Your task to perform on an android device: Open Google Chrome and click the shortcut for Amazon.com Image 0: 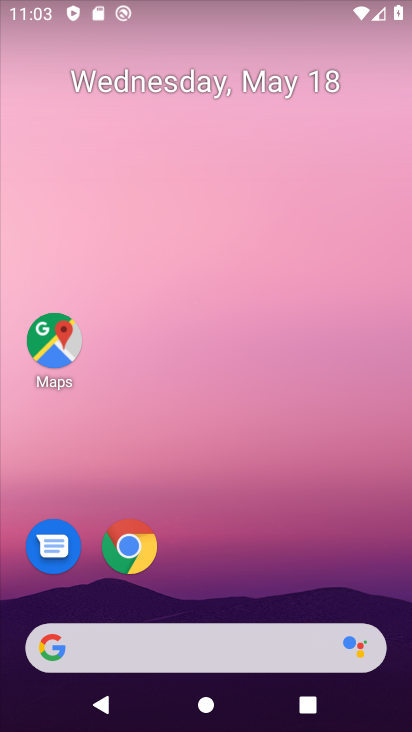
Step 0: click (135, 562)
Your task to perform on an android device: Open Google Chrome and click the shortcut for Amazon.com Image 1: 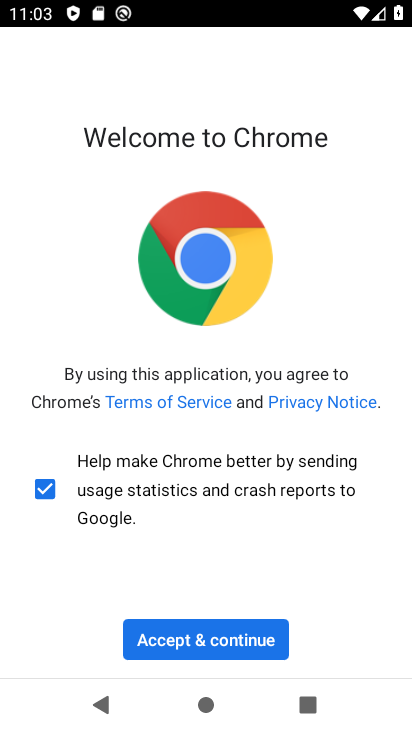
Step 1: click (264, 649)
Your task to perform on an android device: Open Google Chrome and click the shortcut for Amazon.com Image 2: 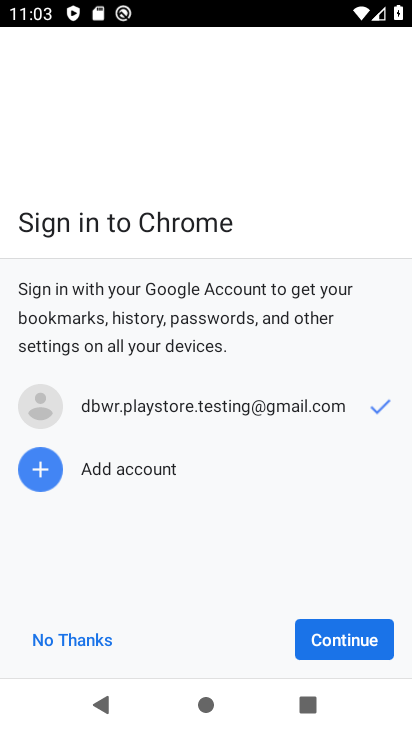
Step 2: click (377, 655)
Your task to perform on an android device: Open Google Chrome and click the shortcut for Amazon.com Image 3: 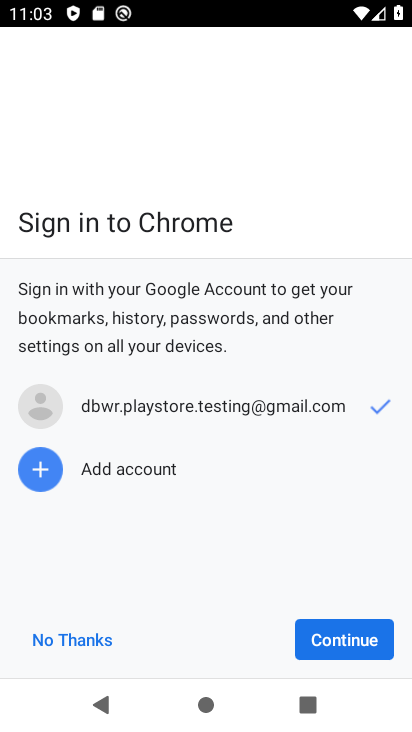
Step 3: click (377, 655)
Your task to perform on an android device: Open Google Chrome and click the shortcut for Amazon.com Image 4: 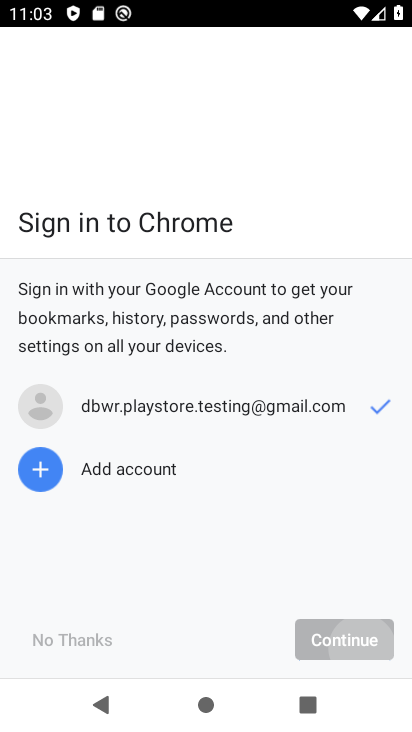
Step 4: click (377, 655)
Your task to perform on an android device: Open Google Chrome and click the shortcut for Amazon.com Image 5: 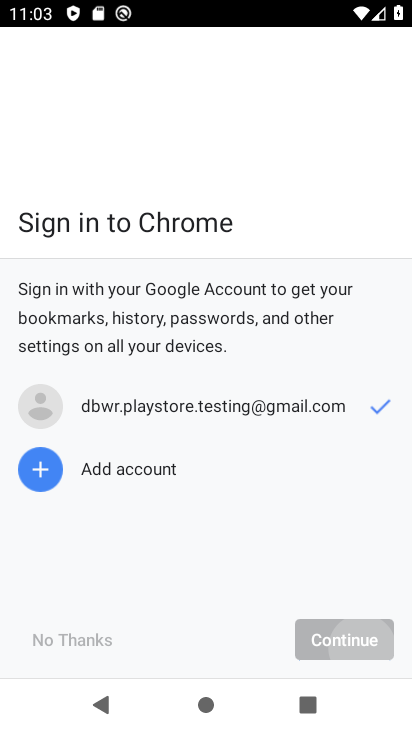
Step 5: click (377, 655)
Your task to perform on an android device: Open Google Chrome and click the shortcut for Amazon.com Image 6: 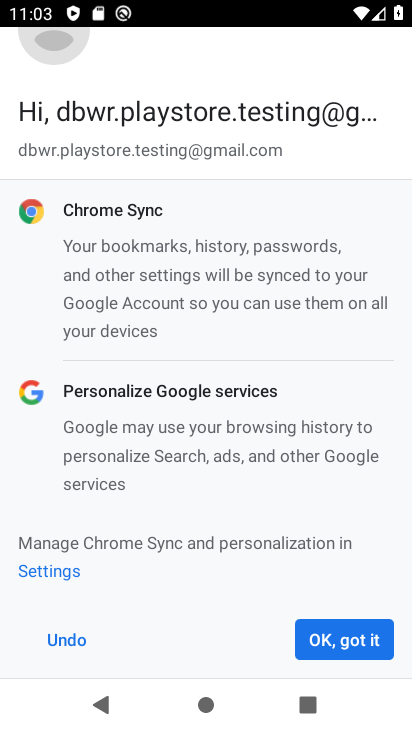
Step 6: click (377, 655)
Your task to perform on an android device: Open Google Chrome and click the shortcut for Amazon.com Image 7: 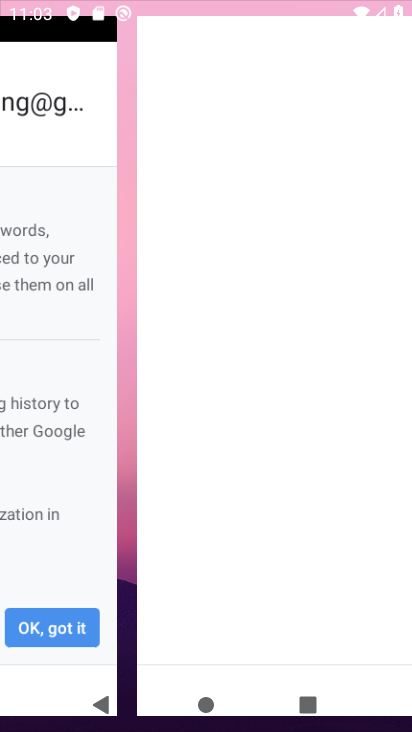
Step 7: click (377, 655)
Your task to perform on an android device: Open Google Chrome and click the shortcut for Amazon.com Image 8: 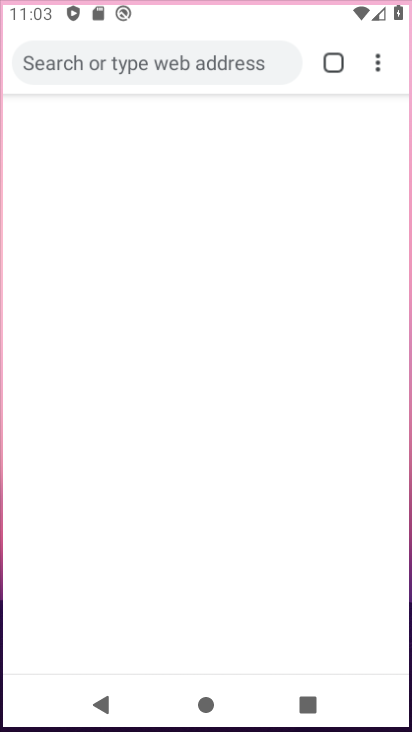
Step 8: click (377, 655)
Your task to perform on an android device: Open Google Chrome and click the shortcut for Amazon.com Image 9: 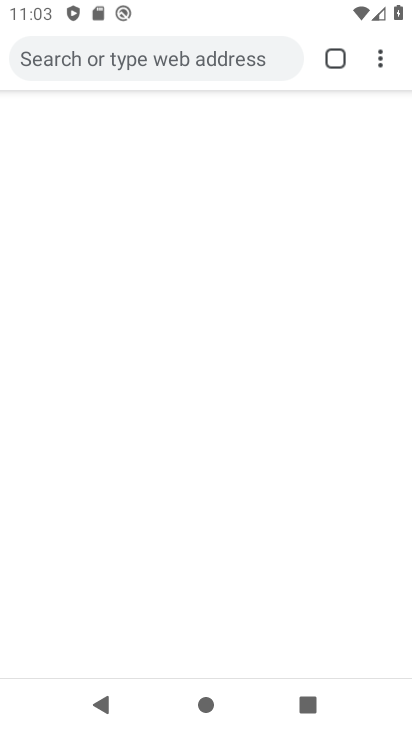
Step 9: click (377, 655)
Your task to perform on an android device: Open Google Chrome and click the shortcut for Amazon.com Image 10: 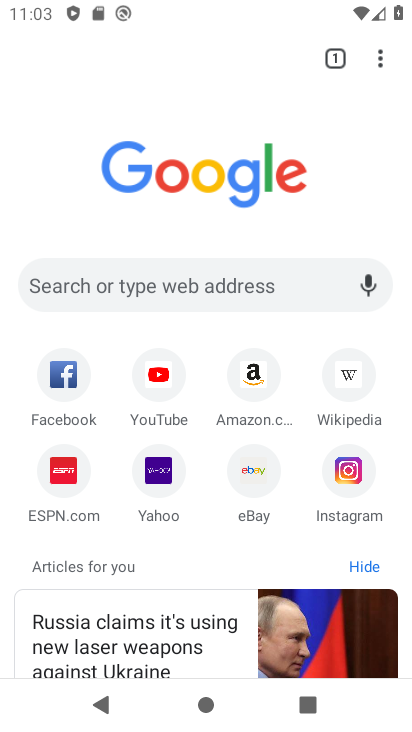
Step 10: click (253, 371)
Your task to perform on an android device: Open Google Chrome and click the shortcut for Amazon.com Image 11: 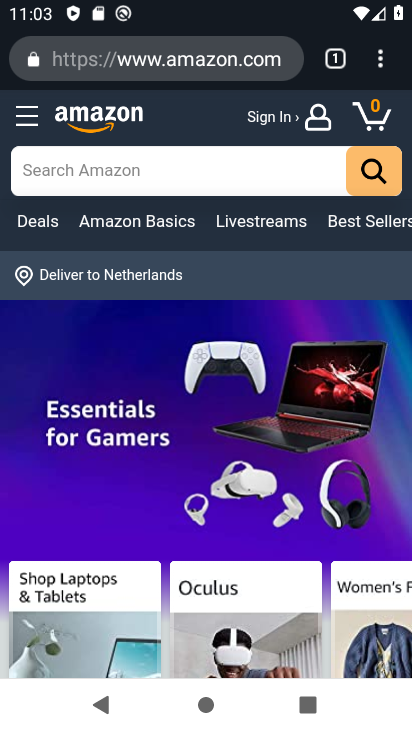
Step 11: task complete